Your task to perform on an android device: Play the last video I watched on Youtube Image 0: 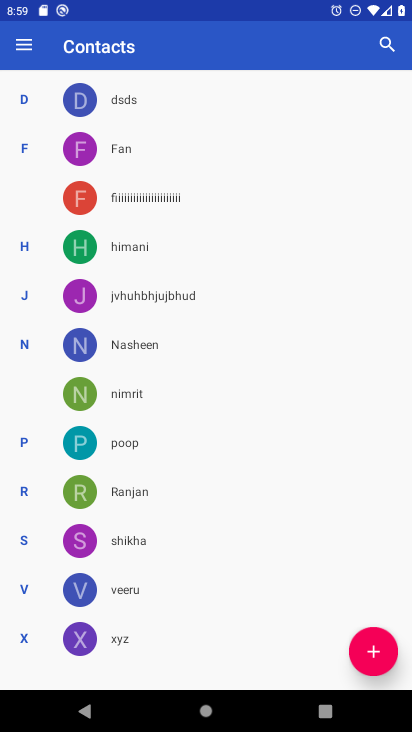
Step 0: press home button
Your task to perform on an android device: Play the last video I watched on Youtube Image 1: 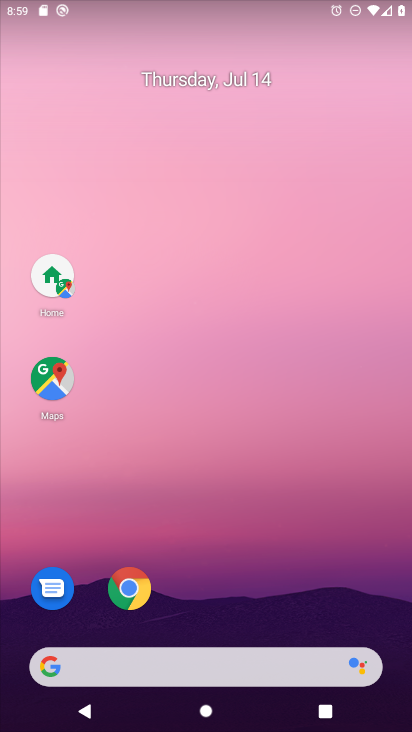
Step 1: drag from (62, 663) to (410, 136)
Your task to perform on an android device: Play the last video I watched on Youtube Image 2: 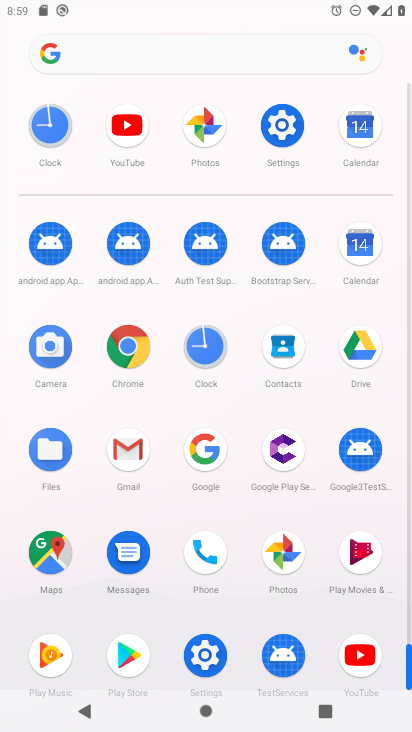
Step 2: click (126, 121)
Your task to perform on an android device: Play the last video I watched on Youtube Image 3: 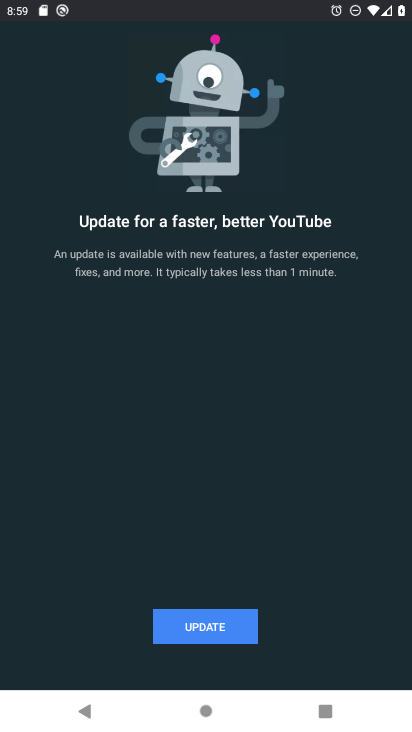
Step 3: click (208, 630)
Your task to perform on an android device: Play the last video I watched on Youtube Image 4: 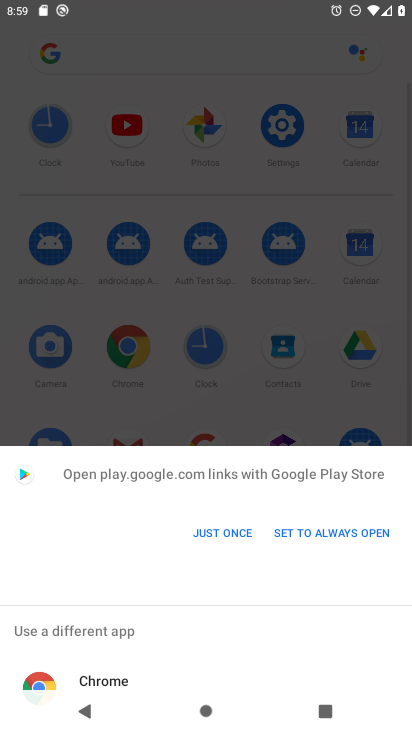
Step 4: drag from (196, 639) to (207, 400)
Your task to perform on an android device: Play the last video I watched on Youtube Image 5: 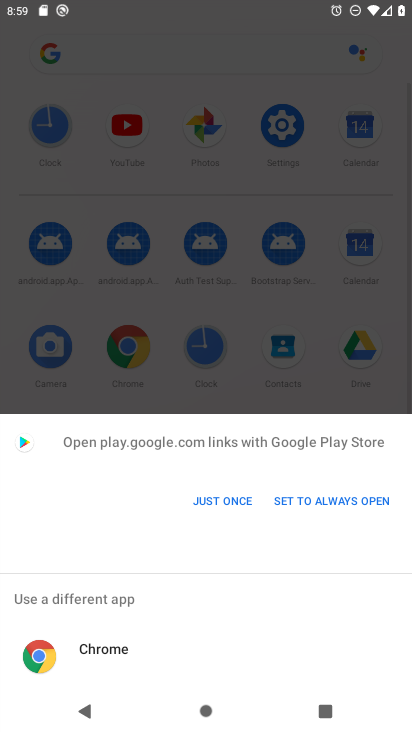
Step 5: click (238, 491)
Your task to perform on an android device: Play the last video I watched on Youtube Image 6: 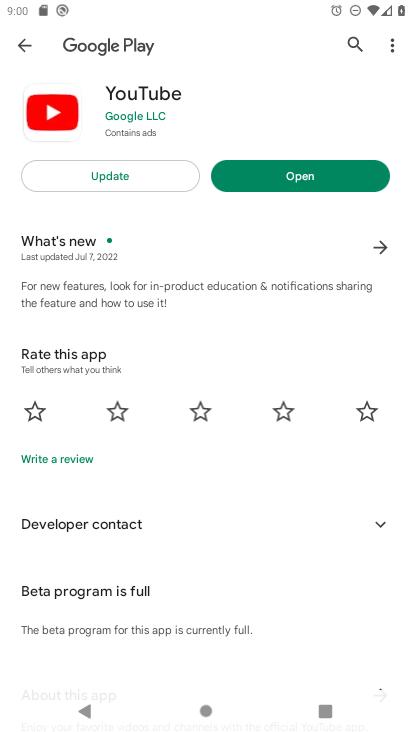
Step 6: click (258, 186)
Your task to perform on an android device: Play the last video I watched on Youtube Image 7: 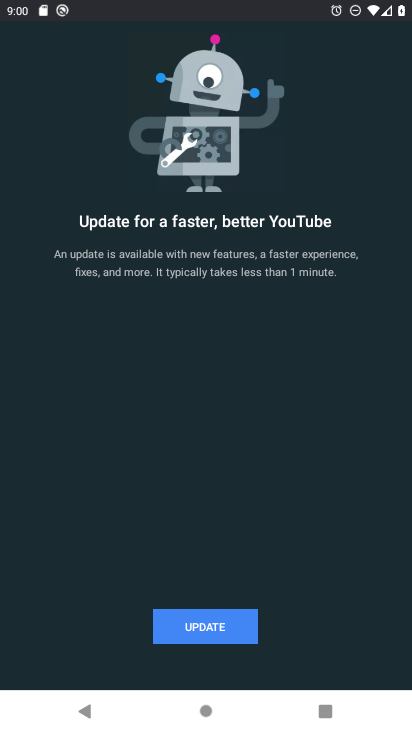
Step 7: task complete